Your task to perform on an android device: Open Youtube and go to "Your channel" Image 0: 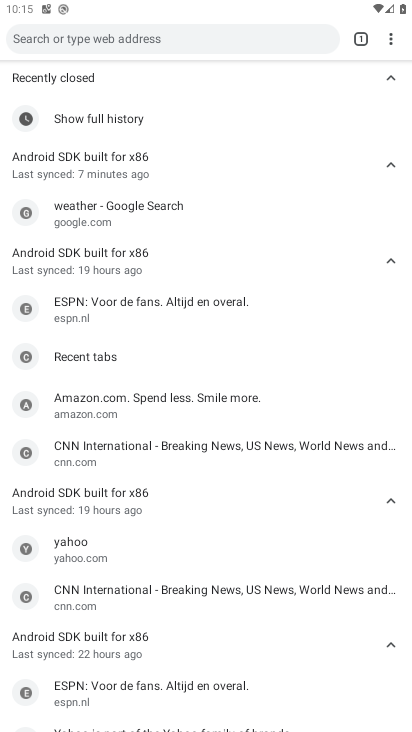
Step 0: press home button
Your task to perform on an android device: Open Youtube and go to "Your channel" Image 1: 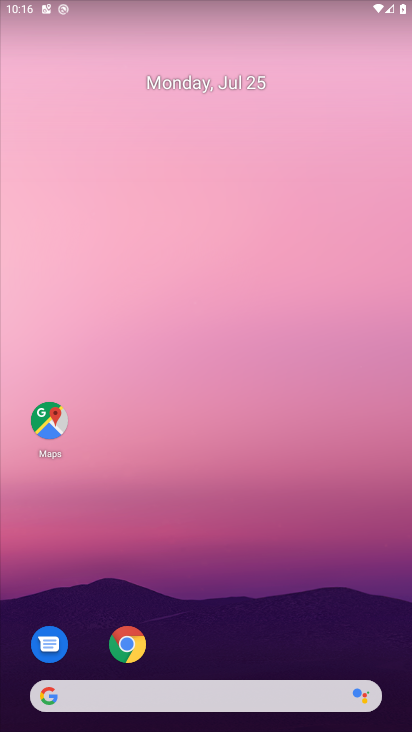
Step 1: drag from (313, 561) to (279, 0)
Your task to perform on an android device: Open Youtube and go to "Your channel" Image 2: 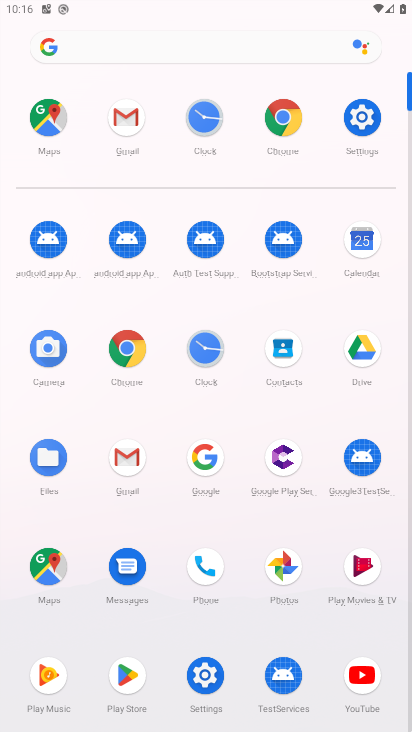
Step 2: click (377, 666)
Your task to perform on an android device: Open Youtube and go to "Your channel" Image 3: 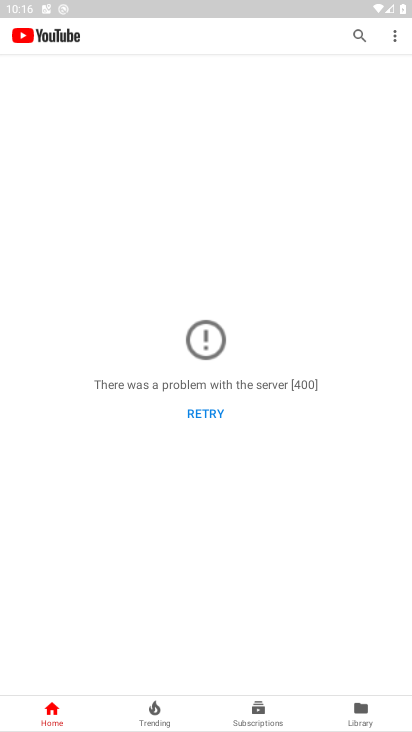
Step 3: click (400, 26)
Your task to perform on an android device: Open Youtube and go to "Your channel" Image 4: 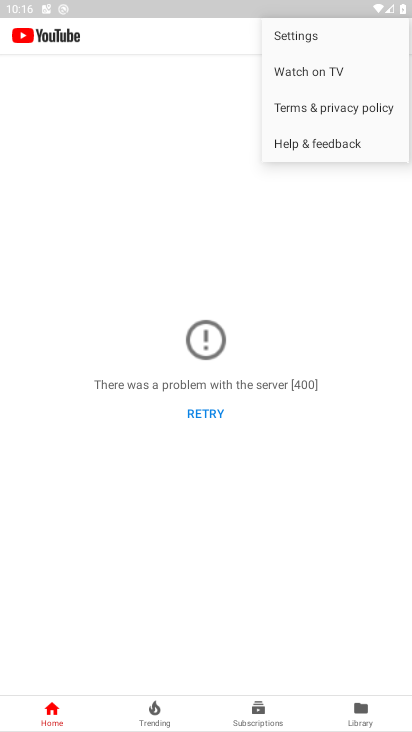
Step 4: click (168, 107)
Your task to perform on an android device: Open Youtube and go to "Your channel" Image 5: 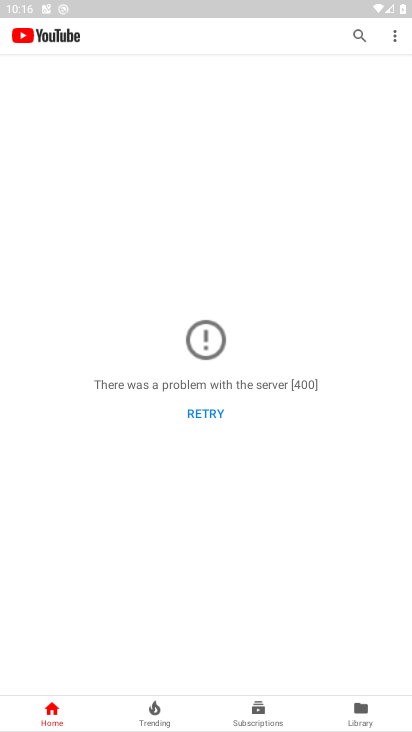
Step 5: task complete